Your task to perform on an android device: find which apps use the phone's location Image 0: 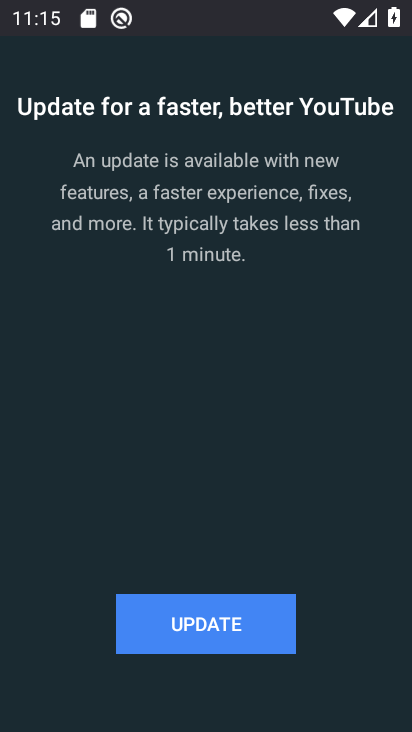
Step 0: press home button
Your task to perform on an android device: find which apps use the phone's location Image 1: 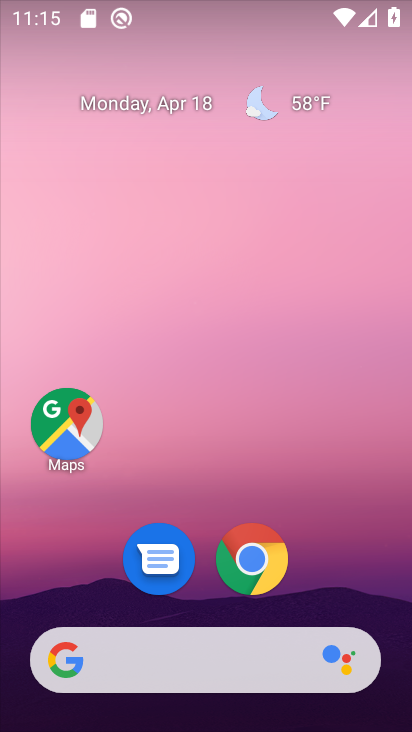
Step 1: drag from (325, 593) to (285, 148)
Your task to perform on an android device: find which apps use the phone's location Image 2: 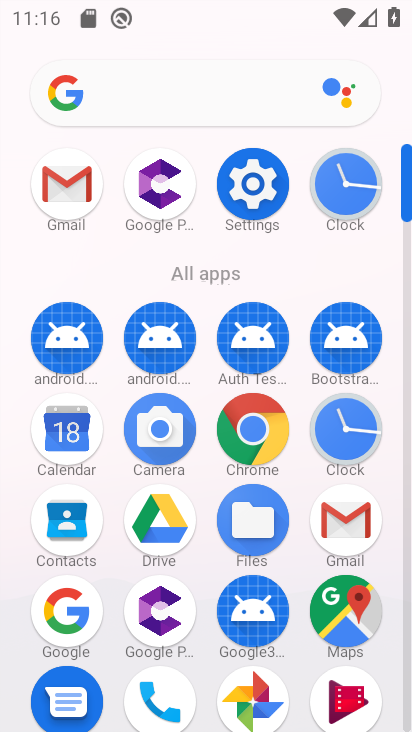
Step 2: click (259, 187)
Your task to perform on an android device: find which apps use the phone's location Image 3: 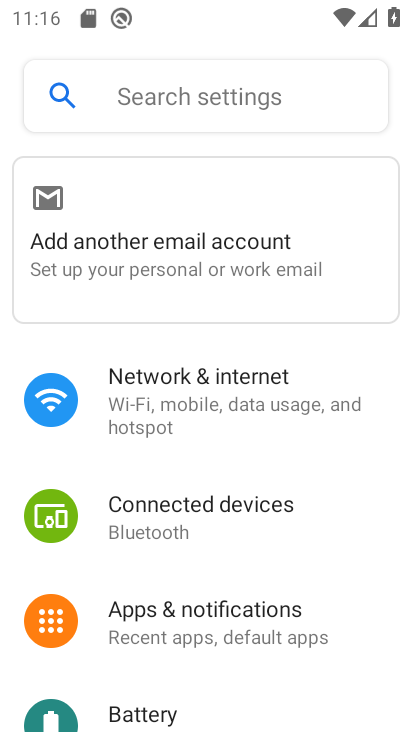
Step 3: drag from (186, 623) to (182, 263)
Your task to perform on an android device: find which apps use the phone's location Image 4: 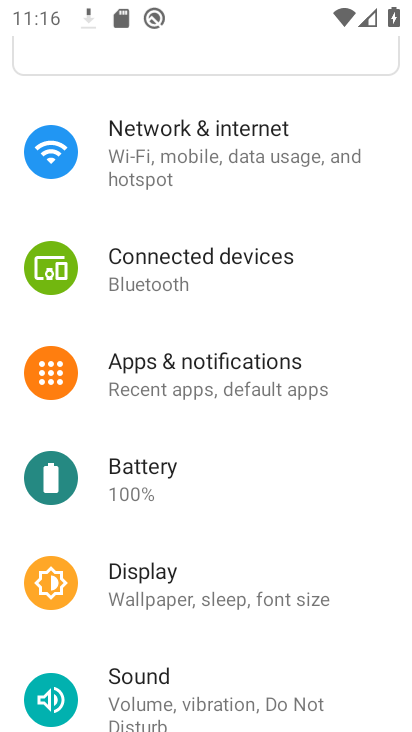
Step 4: drag from (197, 624) to (211, 160)
Your task to perform on an android device: find which apps use the phone's location Image 5: 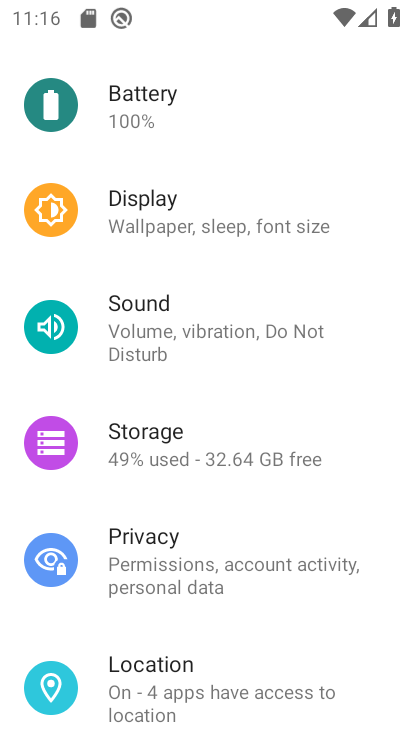
Step 5: click (195, 672)
Your task to perform on an android device: find which apps use the phone's location Image 6: 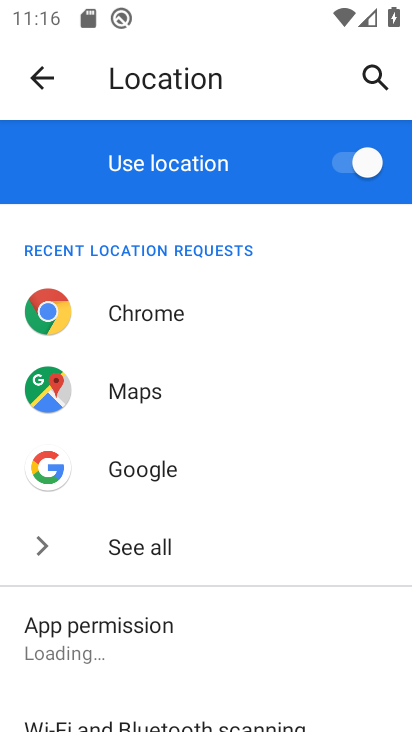
Step 6: click (93, 640)
Your task to perform on an android device: find which apps use the phone's location Image 7: 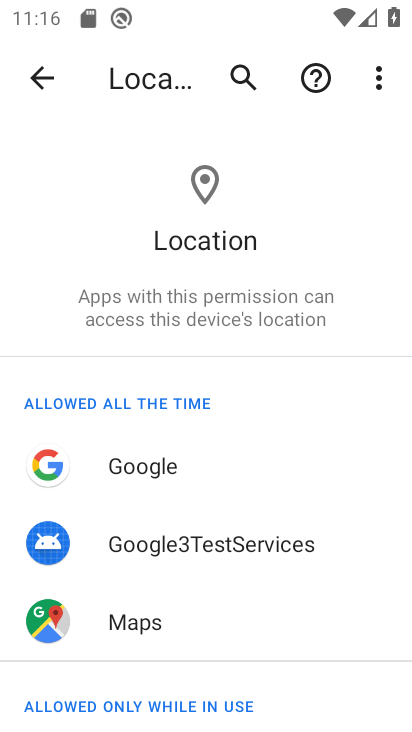
Step 7: task complete